Your task to perform on an android device: Play the last video I watched on Youtube Image 0: 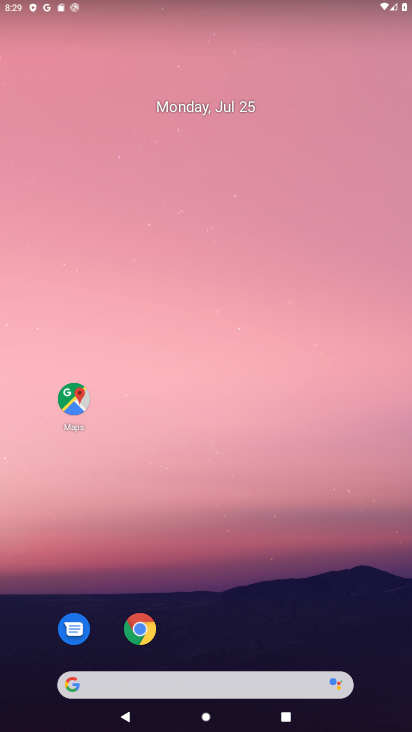
Step 0: drag from (259, 624) to (205, 106)
Your task to perform on an android device: Play the last video I watched on Youtube Image 1: 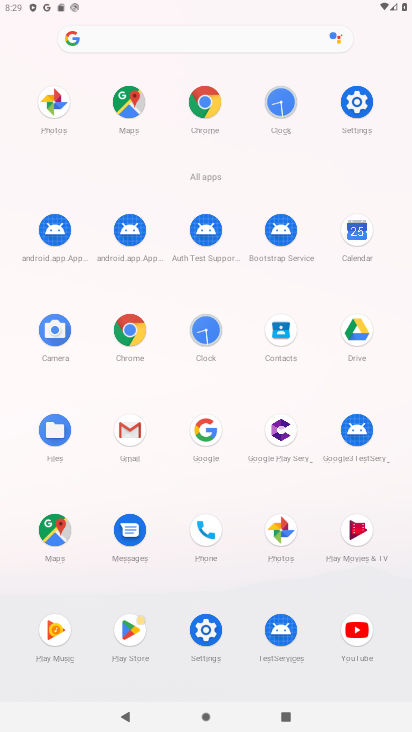
Step 1: click (348, 627)
Your task to perform on an android device: Play the last video I watched on Youtube Image 2: 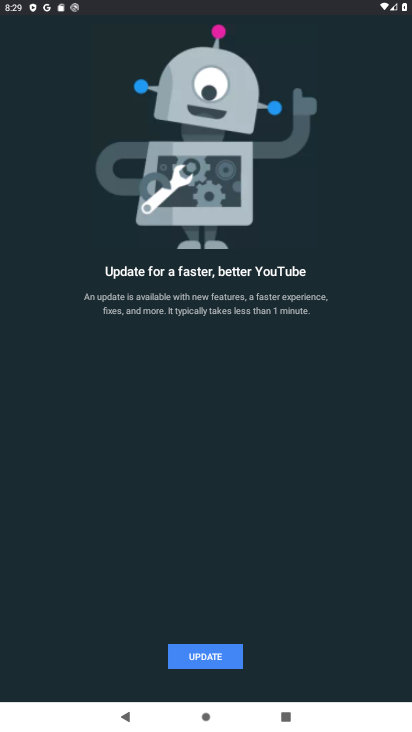
Step 2: click (216, 654)
Your task to perform on an android device: Play the last video I watched on Youtube Image 3: 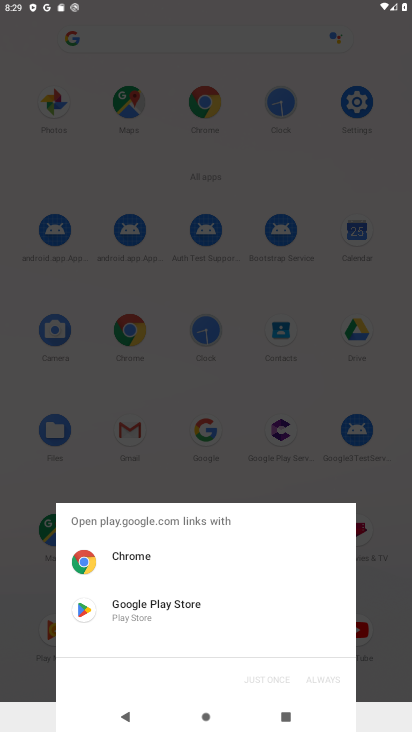
Step 3: click (159, 614)
Your task to perform on an android device: Play the last video I watched on Youtube Image 4: 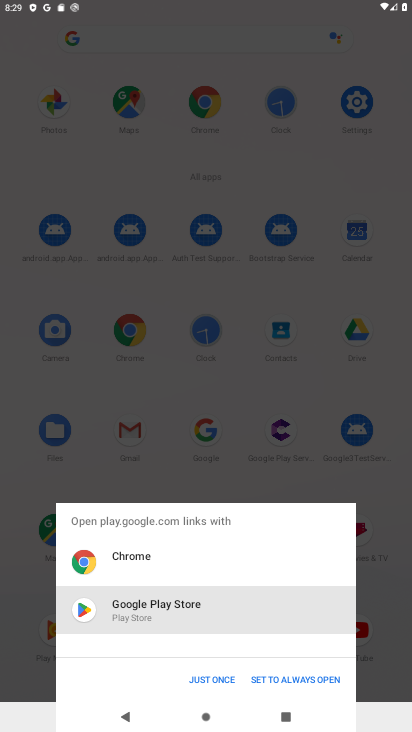
Step 4: click (218, 678)
Your task to perform on an android device: Play the last video I watched on Youtube Image 5: 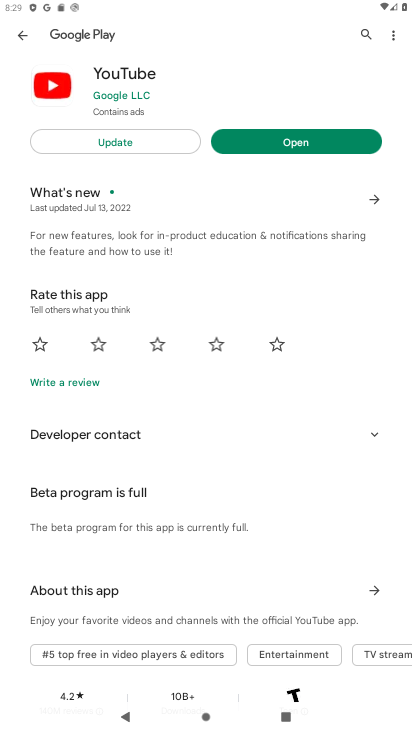
Step 5: click (135, 151)
Your task to perform on an android device: Play the last video I watched on Youtube Image 6: 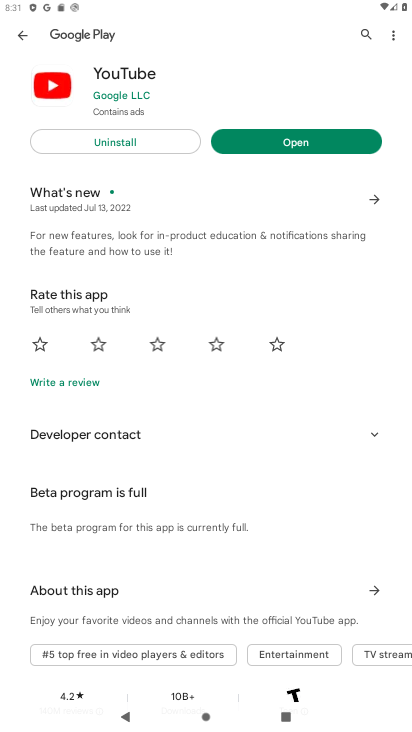
Step 6: click (339, 147)
Your task to perform on an android device: Play the last video I watched on Youtube Image 7: 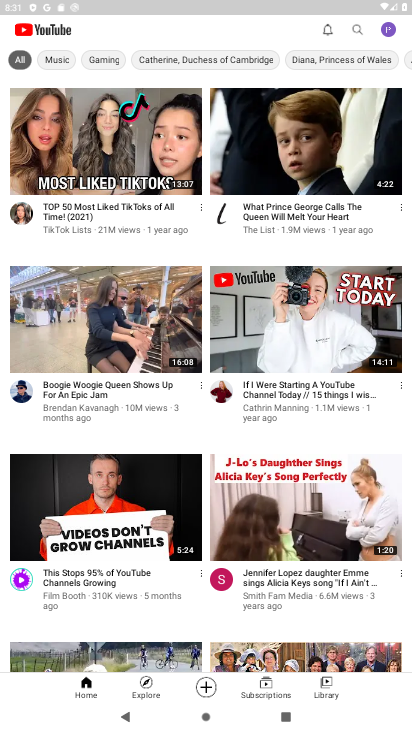
Step 7: click (321, 691)
Your task to perform on an android device: Play the last video I watched on Youtube Image 8: 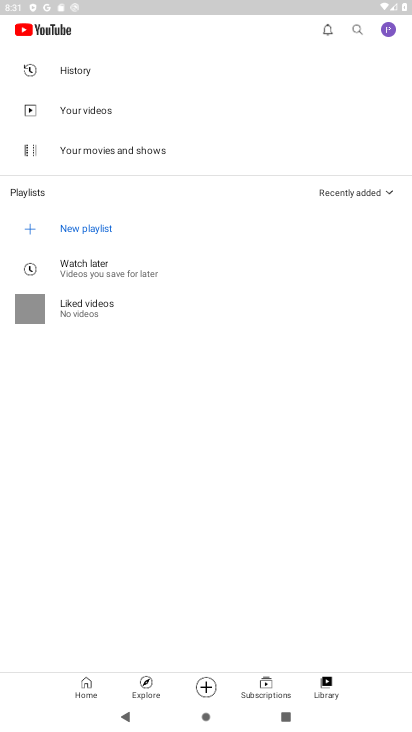
Step 8: click (114, 80)
Your task to perform on an android device: Play the last video I watched on Youtube Image 9: 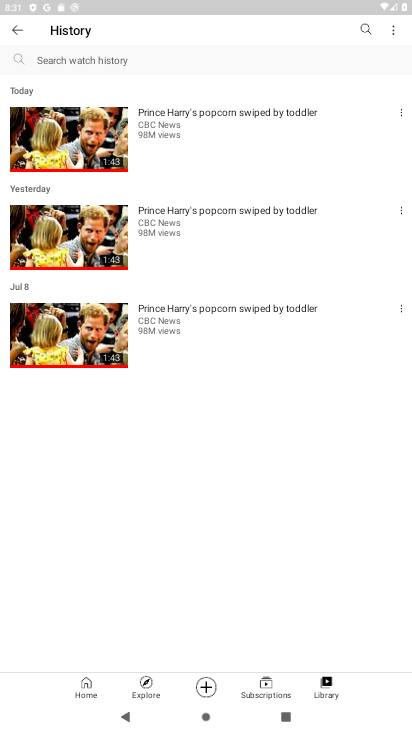
Step 9: click (62, 160)
Your task to perform on an android device: Play the last video I watched on Youtube Image 10: 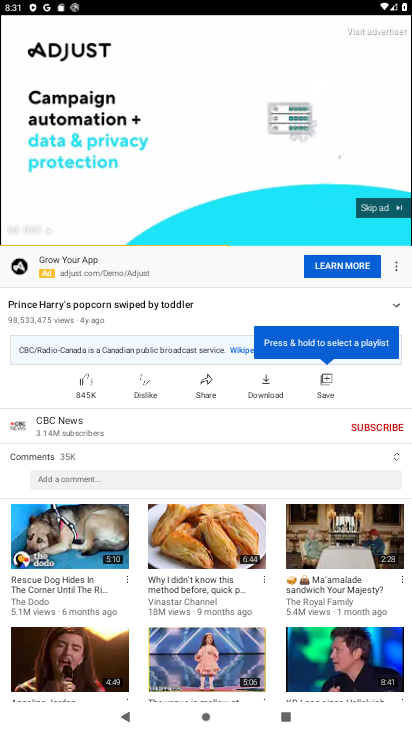
Step 10: click (380, 203)
Your task to perform on an android device: Play the last video I watched on Youtube Image 11: 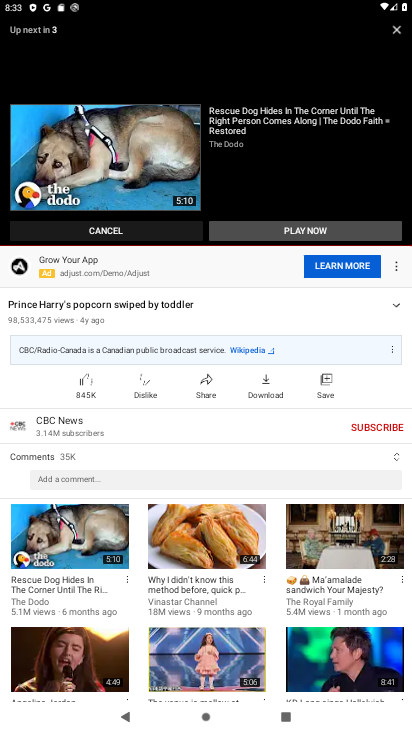
Step 11: task complete